Your task to perform on an android device: What's on the menu at Panera? Image 0: 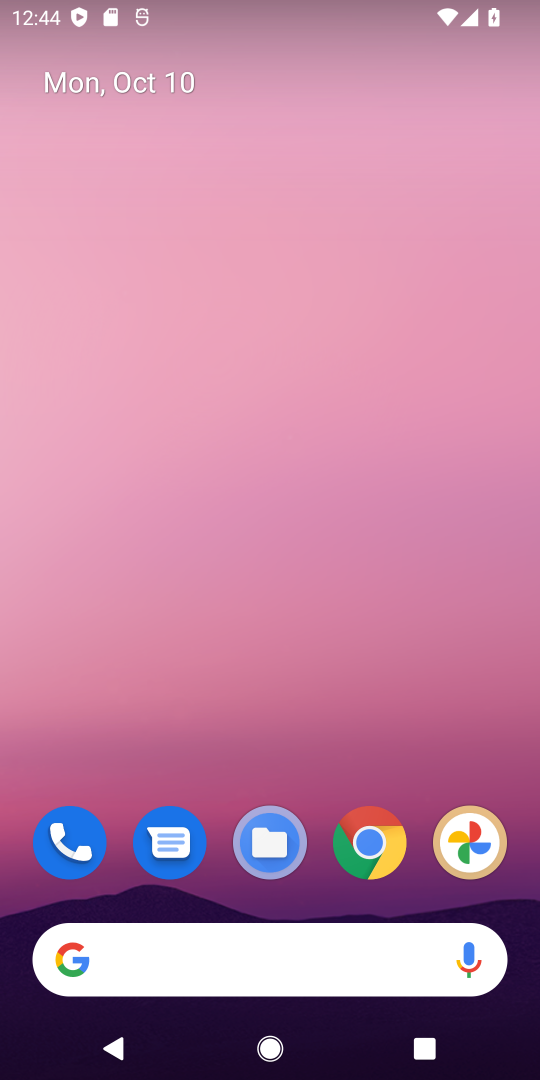
Step 0: click (362, 850)
Your task to perform on an android device: What's on the menu at Panera? Image 1: 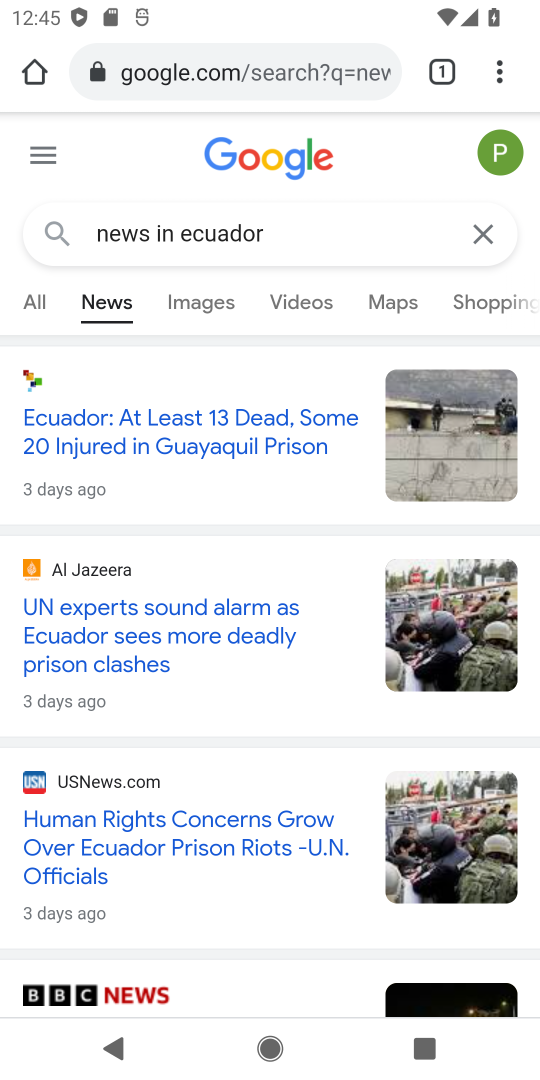
Step 1: click (225, 65)
Your task to perform on an android device: What's on the menu at Panera? Image 2: 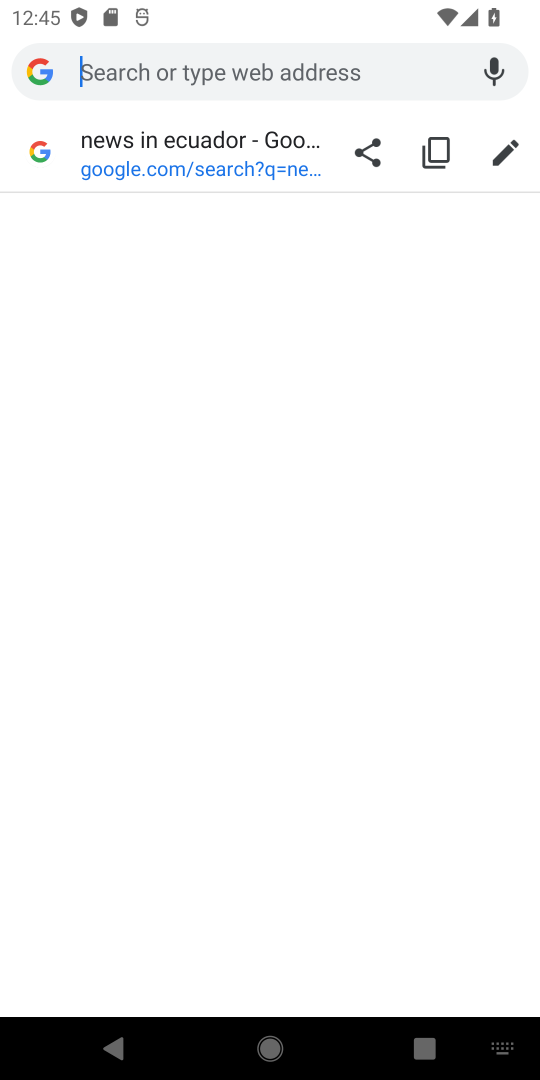
Step 2: type "Panera"
Your task to perform on an android device: What's on the menu at Panera? Image 3: 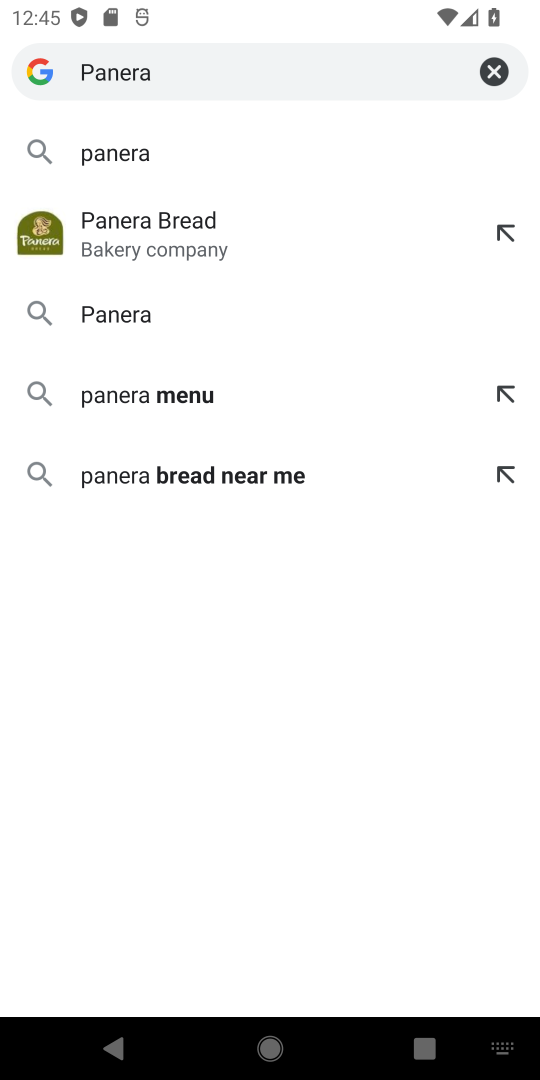
Step 3: click (340, 225)
Your task to perform on an android device: What's on the menu at Panera? Image 4: 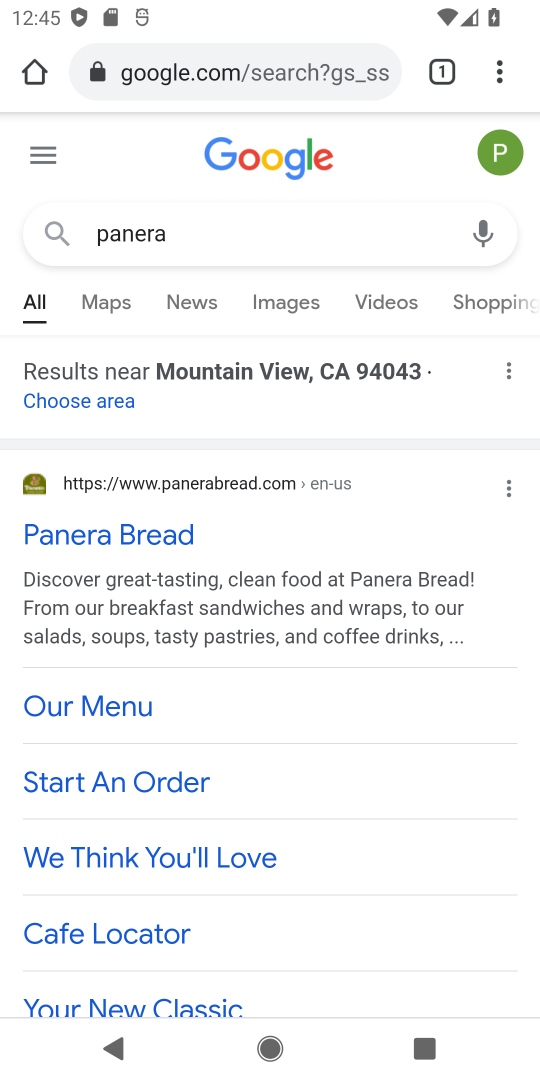
Step 4: click (111, 700)
Your task to perform on an android device: What's on the menu at Panera? Image 5: 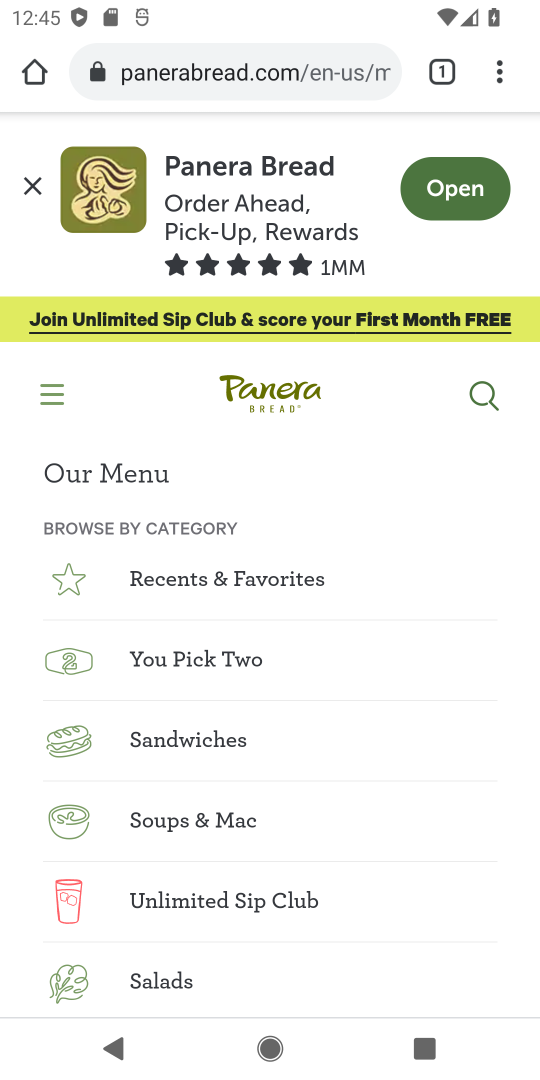
Step 5: task complete